Your task to perform on an android device: Open calendar and show me the second week of next month Image 0: 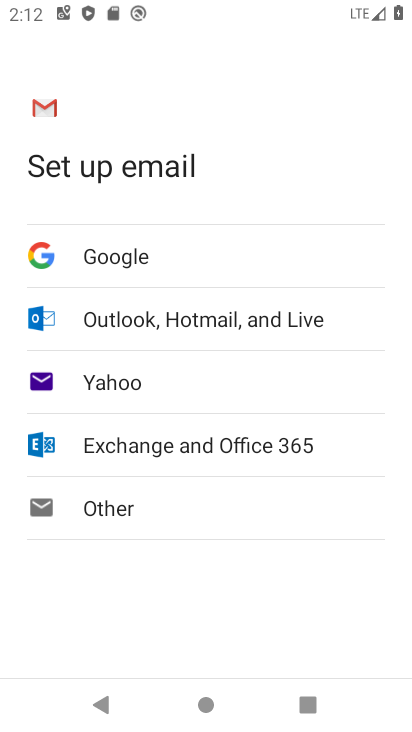
Step 0: press home button
Your task to perform on an android device: Open calendar and show me the second week of next month Image 1: 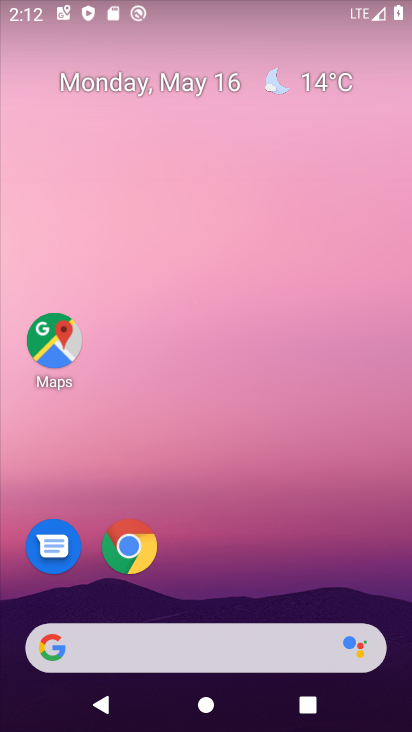
Step 1: drag from (296, 679) to (155, 167)
Your task to perform on an android device: Open calendar and show me the second week of next month Image 2: 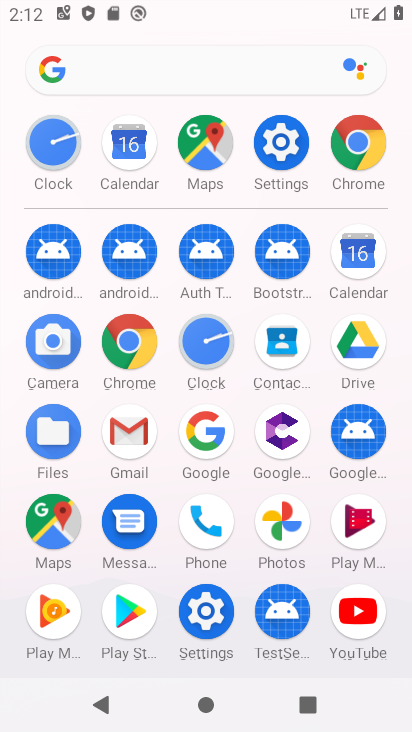
Step 2: click (356, 259)
Your task to perform on an android device: Open calendar and show me the second week of next month Image 3: 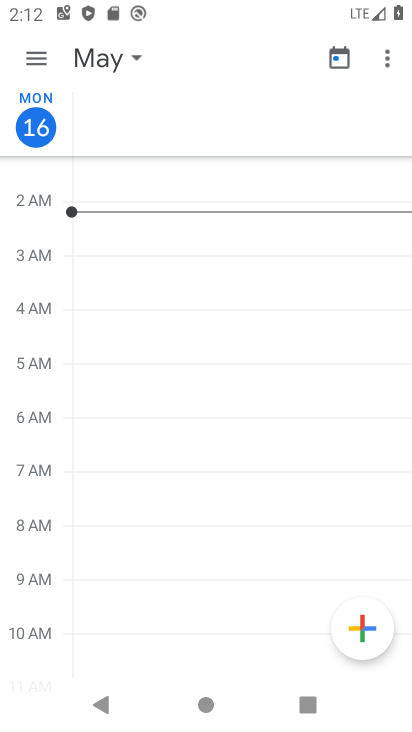
Step 3: click (36, 68)
Your task to perform on an android device: Open calendar and show me the second week of next month Image 4: 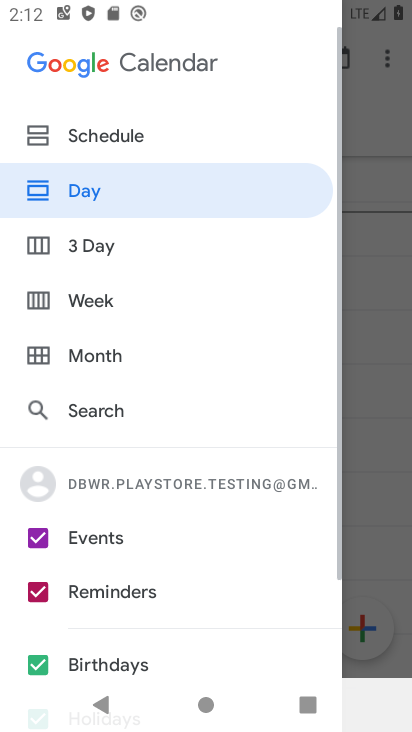
Step 4: click (93, 349)
Your task to perform on an android device: Open calendar and show me the second week of next month Image 5: 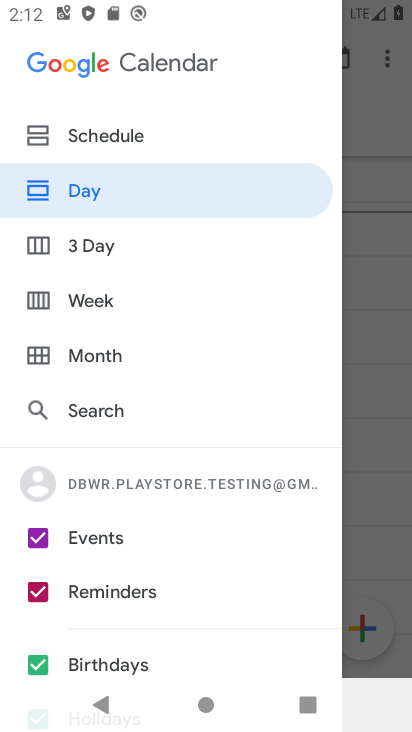
Step 5: click (118, 356)
Your task to perform on an android device: Open calendar and show me the second week of next month Image 6: 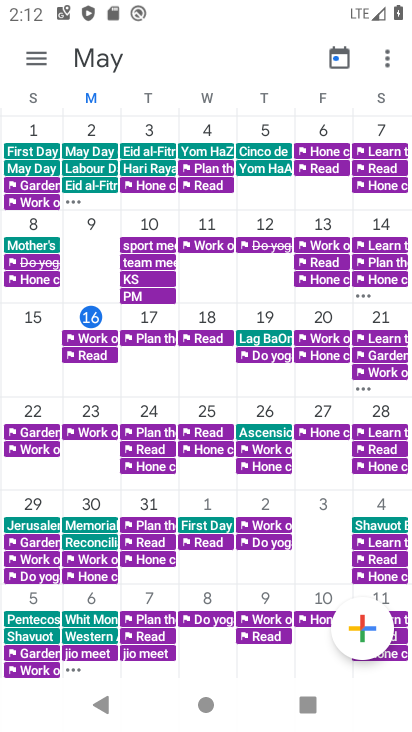
Step 6: drag from (343, 470) to (3, 497)
Your task to perform on an android device: Open calendar and show me the second week of next month Image 7: 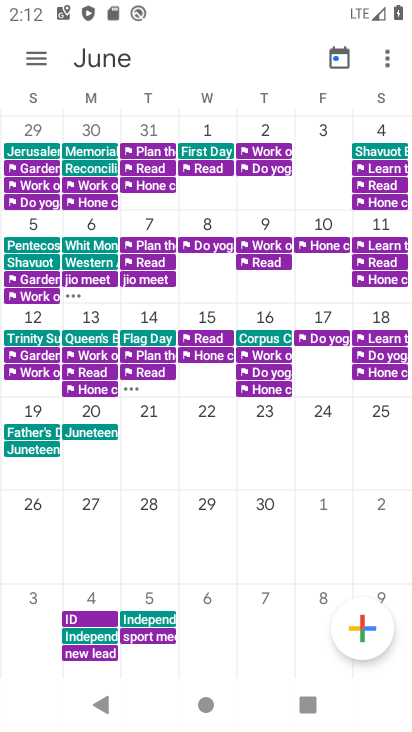
Step 7: click (88, 310)
Your task to perform on an android device: Open calendar and show me the second week of next month Image 8: 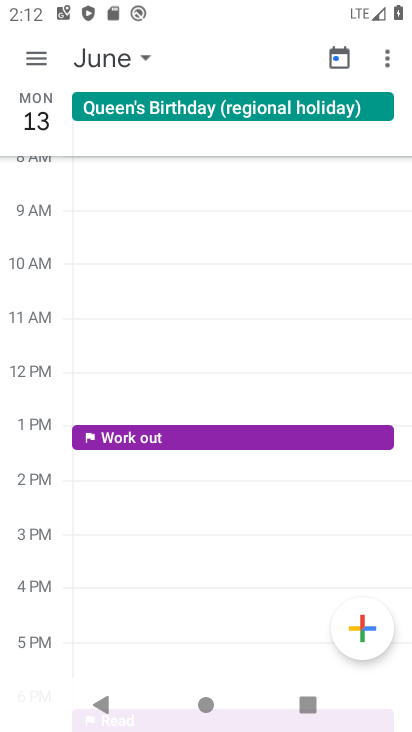
Step 8: task complete